Your task to perform on an android device: Set the phone to "Do not disturb". Image 0: 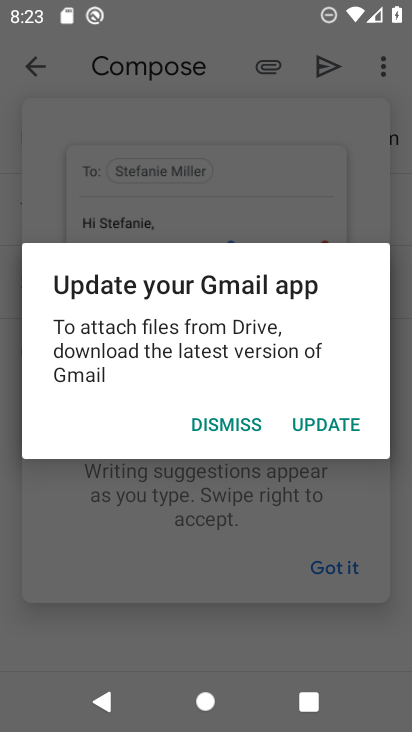
Step 0: press home button
Your task to perform on an android device: Set the phone to "Do not disturb". Image 1: 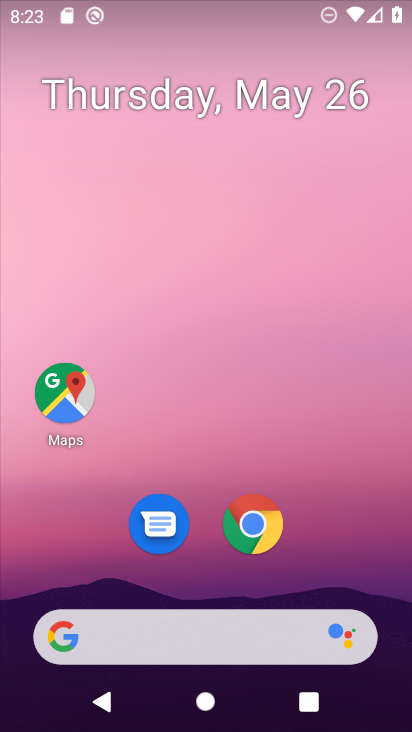
Step 1: drag from (200, 421) to (225, 41)
Your task to perform on an android device: Set the phone to "Do not disturb". Image 2: 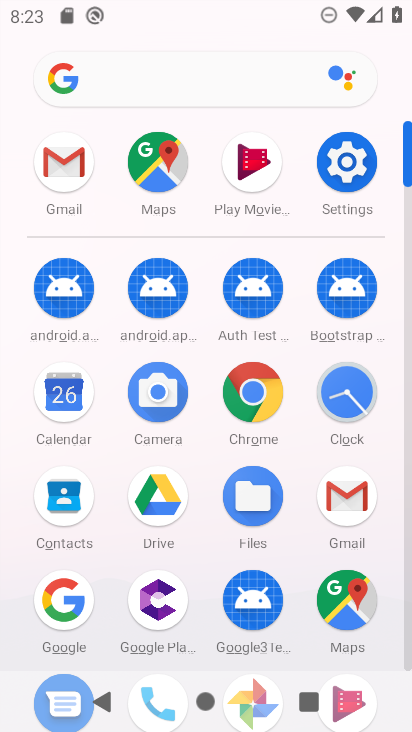
Step 2: click (342, 160)
Your task to perform on an android device: Set the phone to "Do not disturb". Image 3: 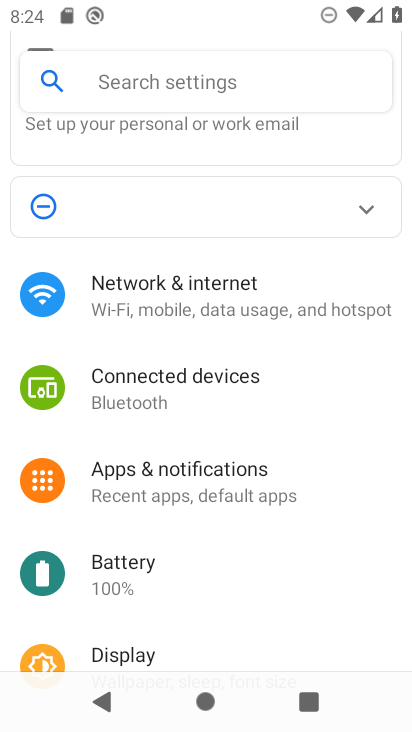
Step 3: drag from (185, 552) to (203, 173)
Your task to perform on an android device: Set the phone to "Do not disturb". Image 4: 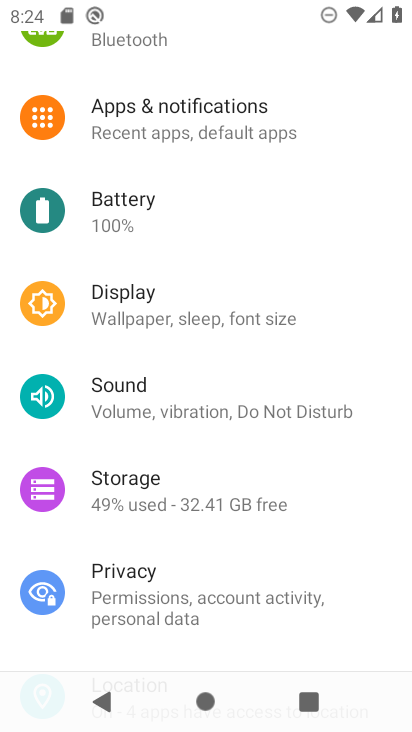
Step 4: click (213, 396)
Your task to perform on an android device: Set the phone to "Do not disturb". Image 5: 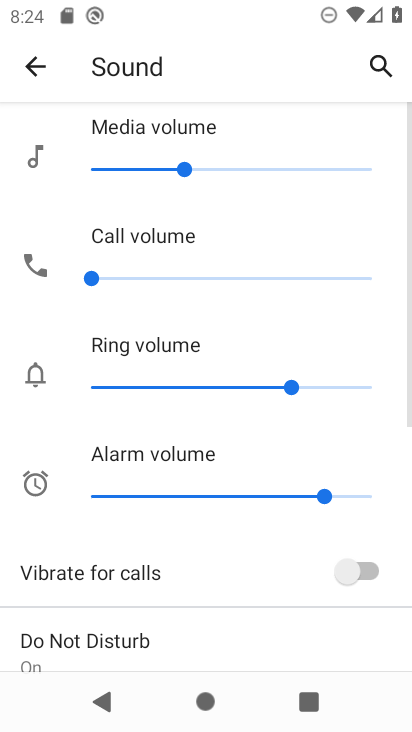
Step 5: task complete